Your task to perform on an android device: Open wifi settings Image 0: 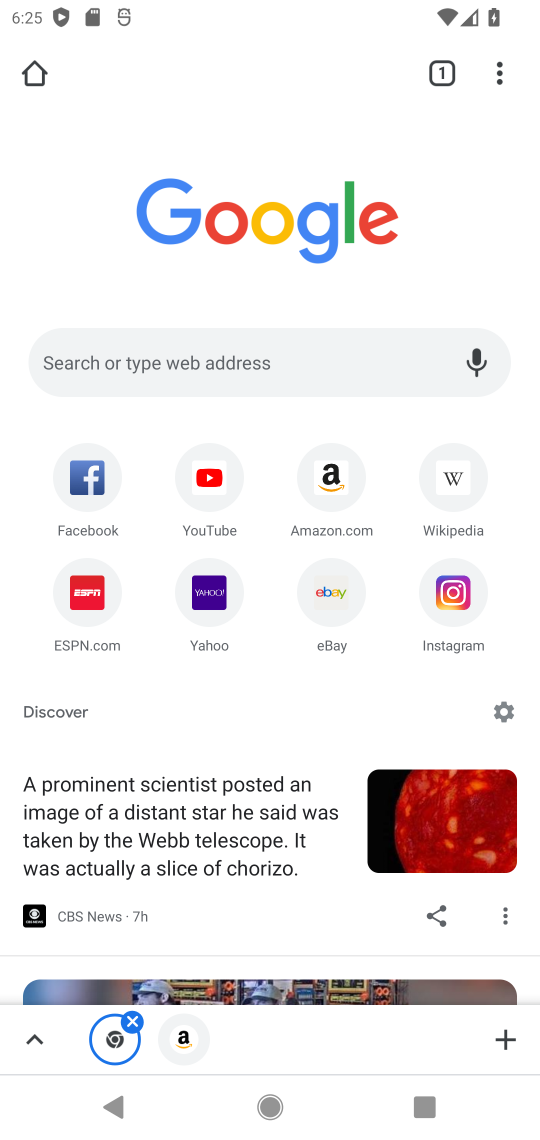
Step 0: press back button
Your task to perform on an android device: Open wifi settings Image 1: 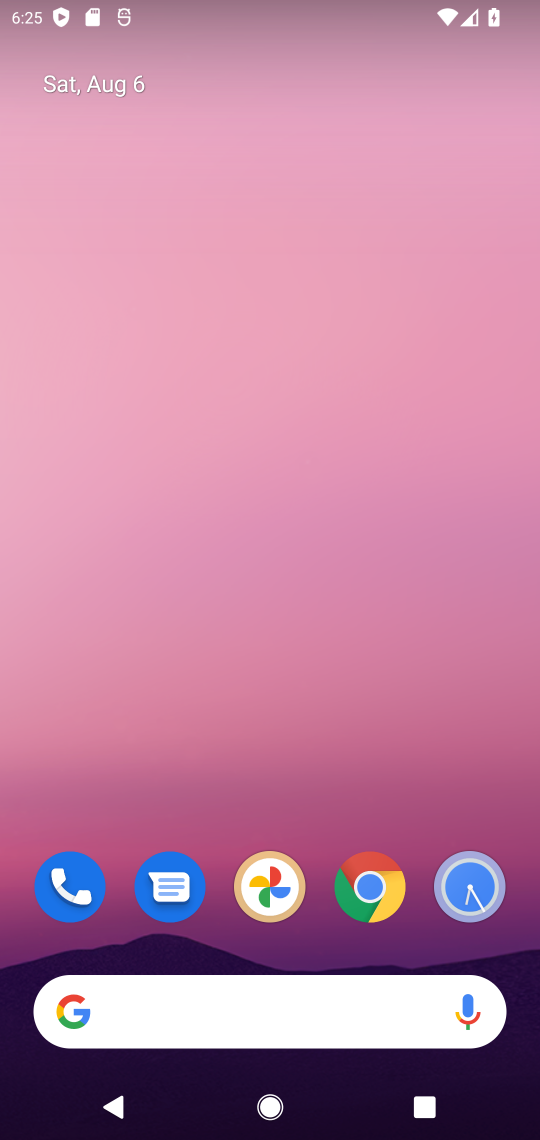
Step 1: drag from (307, 445) to (260, 253)
Your task to perform on an android device: Open wifi settings Image 2: 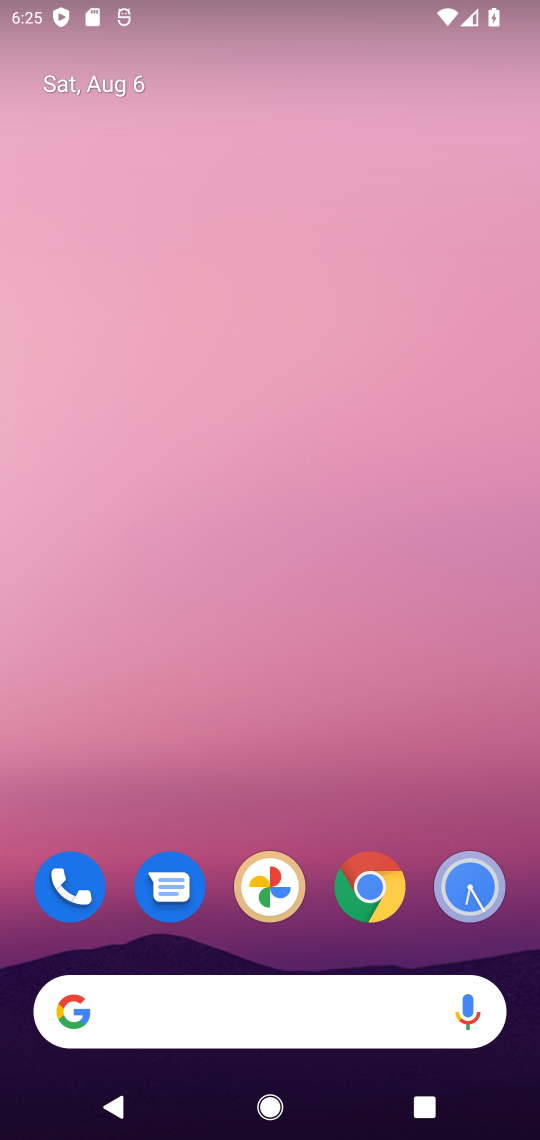
Step 2: click (371, 318)
Your task to perform on an android device: Open wifi settings Image 3: 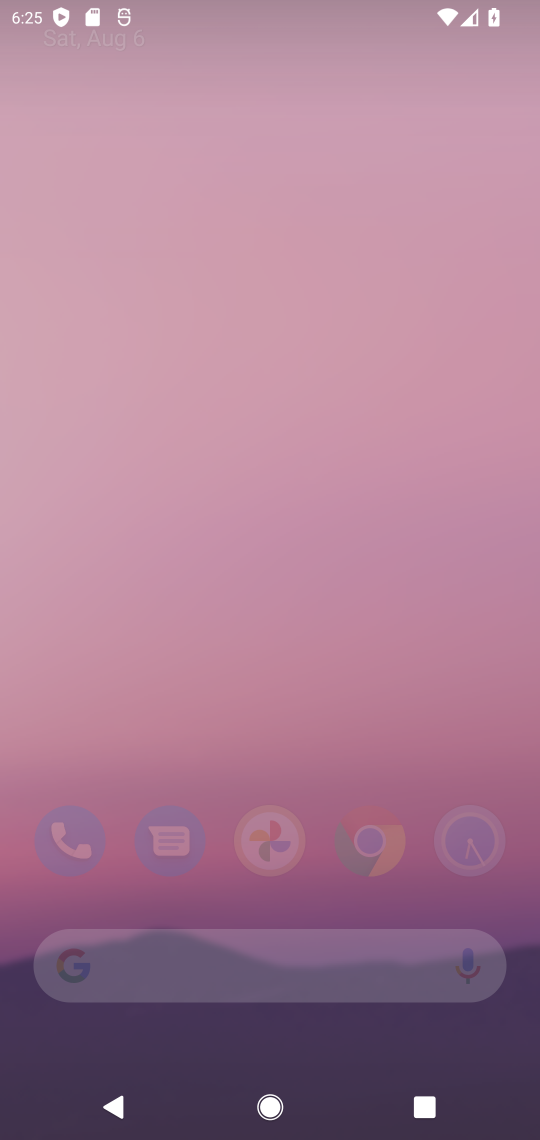
Step 3: drag from (405, 860) to (292, 292)
Your task to perform on an android device: Open wifi settings Image 4: 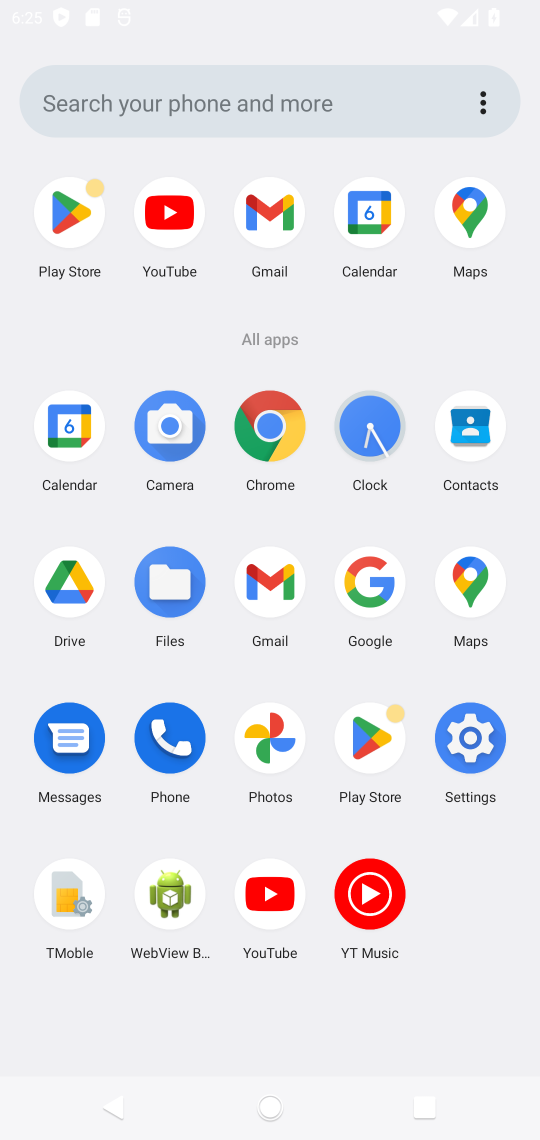
Step 4: drag from (261, 654) to (207, 308)
Your task to perform on an android device: Open wifi settings Image 5: 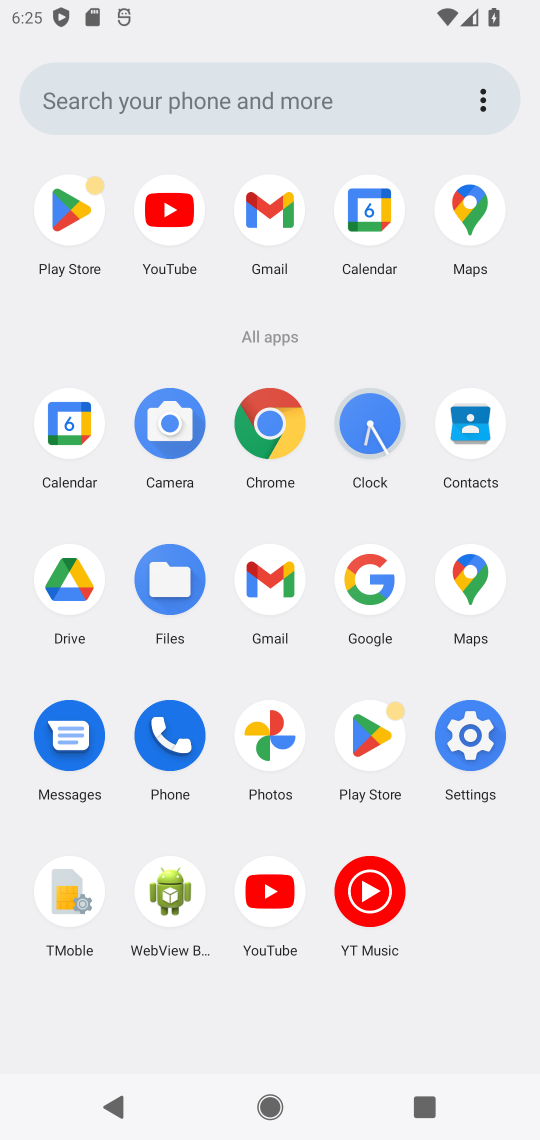
Step 5: drag from (208, 812) to (147, 197)
Your task to perform on an android device: Open wifi settings Image 6: 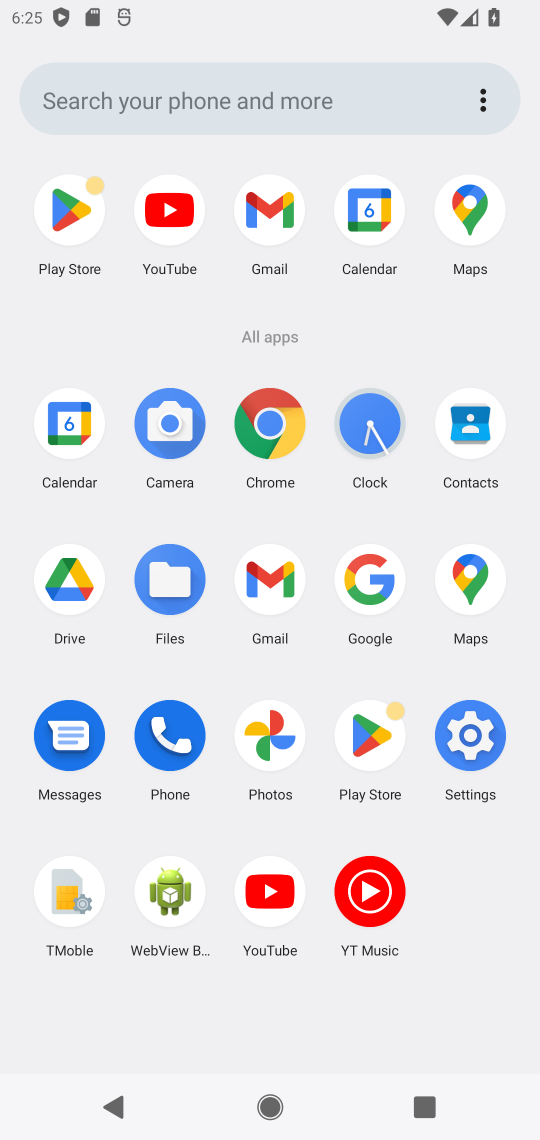
Step 6: click (463, 737)
Your task to perform on an android device: Open wifi settings Image 7: 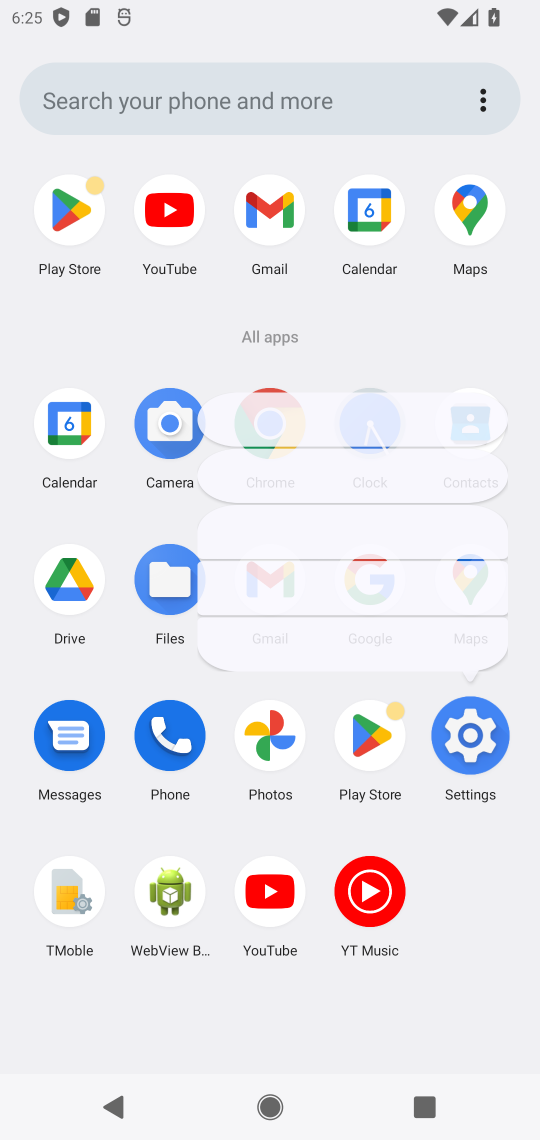
Step 7: click (465, 742)
Your task to perform on an android device: Open wifi settings Image 8: 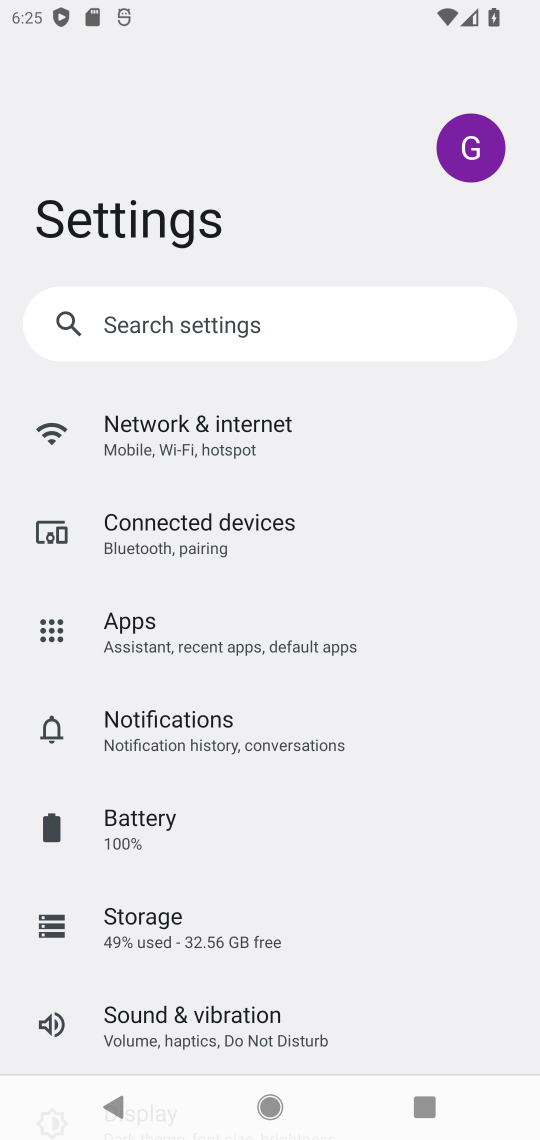
Step 8: click (214, 441)
Your task to perform on an android device: Open wifi settings Image 9: 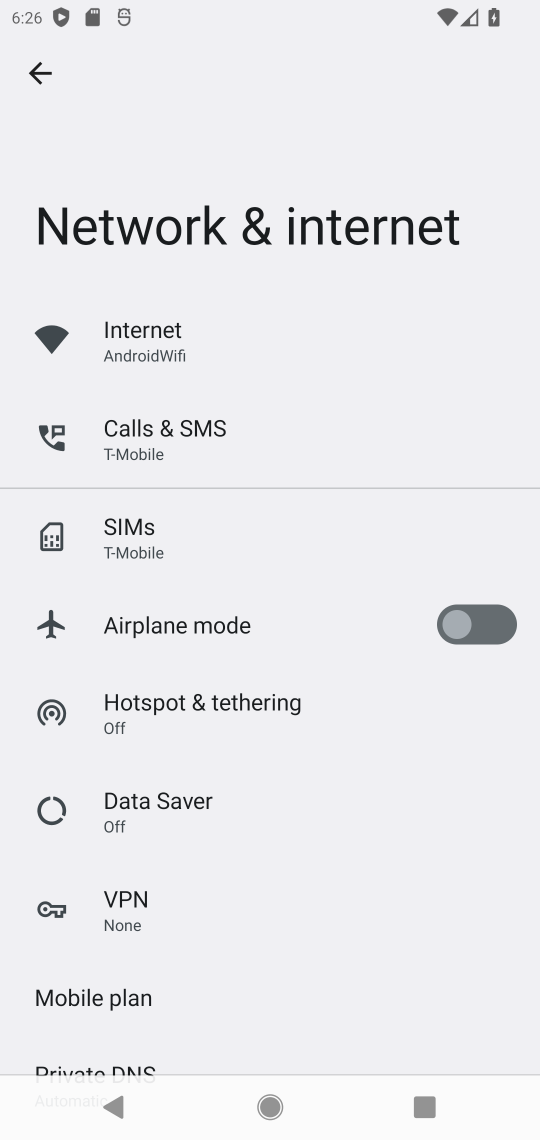
Step 9: click (146, 343)
Your task to perform on an android device: Open wifi settings Image 10: 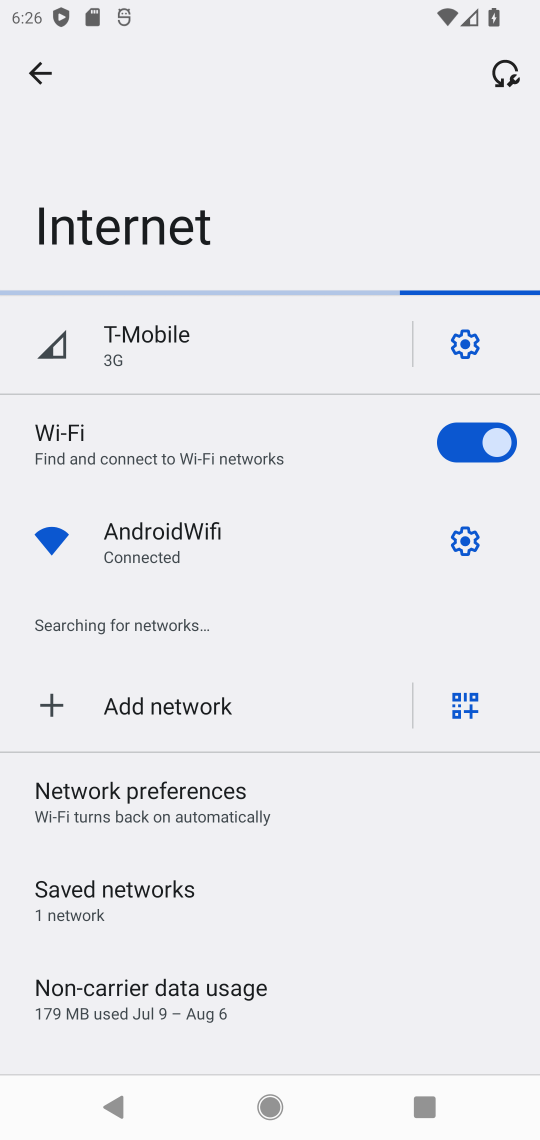
Step 10: task complete